Your task to perform on an android device: Open the stopwatch Image 0: 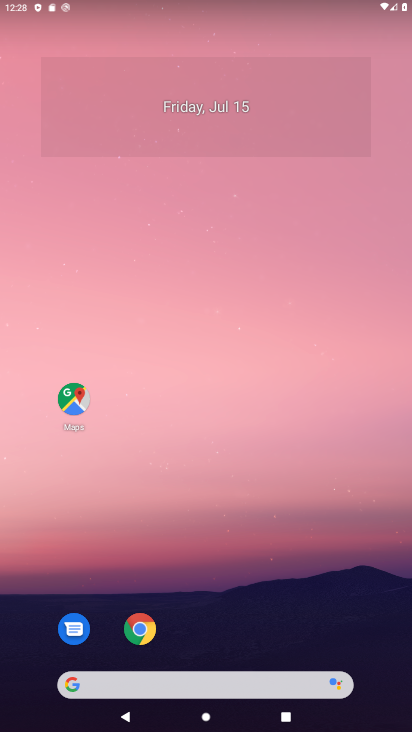
Step 0: drag from (197, 611) to (166, 87)
Your task to perform on an android device: Open the stopwatch Image 1: 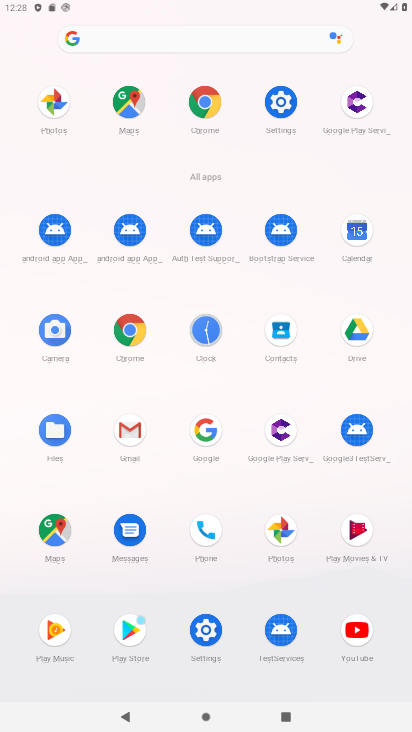
Step 1: click (211, 336)
Your task to perform on an android device: Open the stopwatch Image 2: 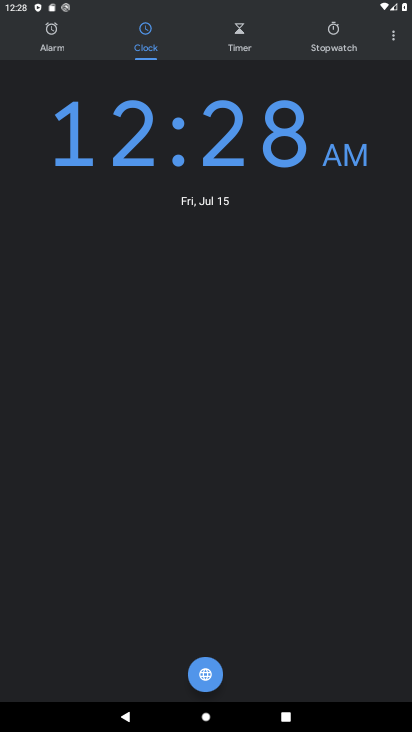
Step 2: click (339, 50)
Your task to perform on an android device: Open the stopwatch Image 3: 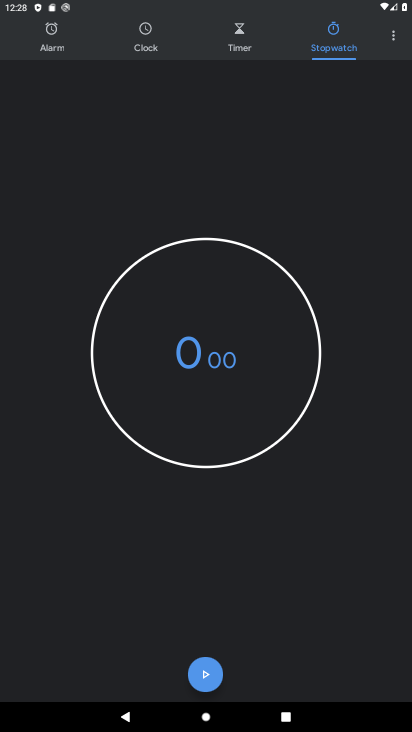
Step 3: click (214, 669)
Your task to perform on an android device: Open the stopwatch Image 4: 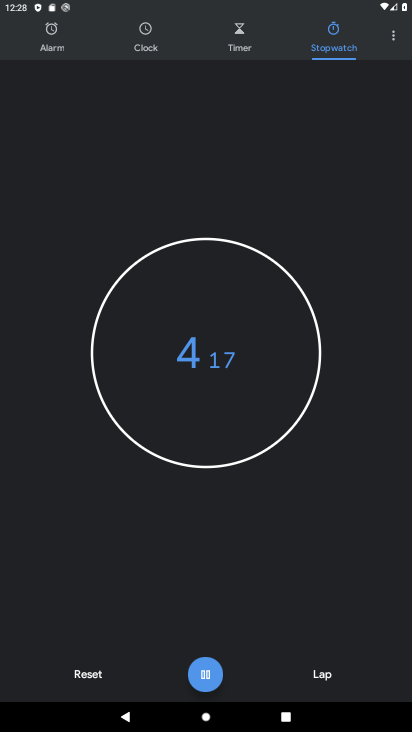
Step 4: task complete